Your task to perform on an android device: remove spam from my inbox in the gmail app Image 0: 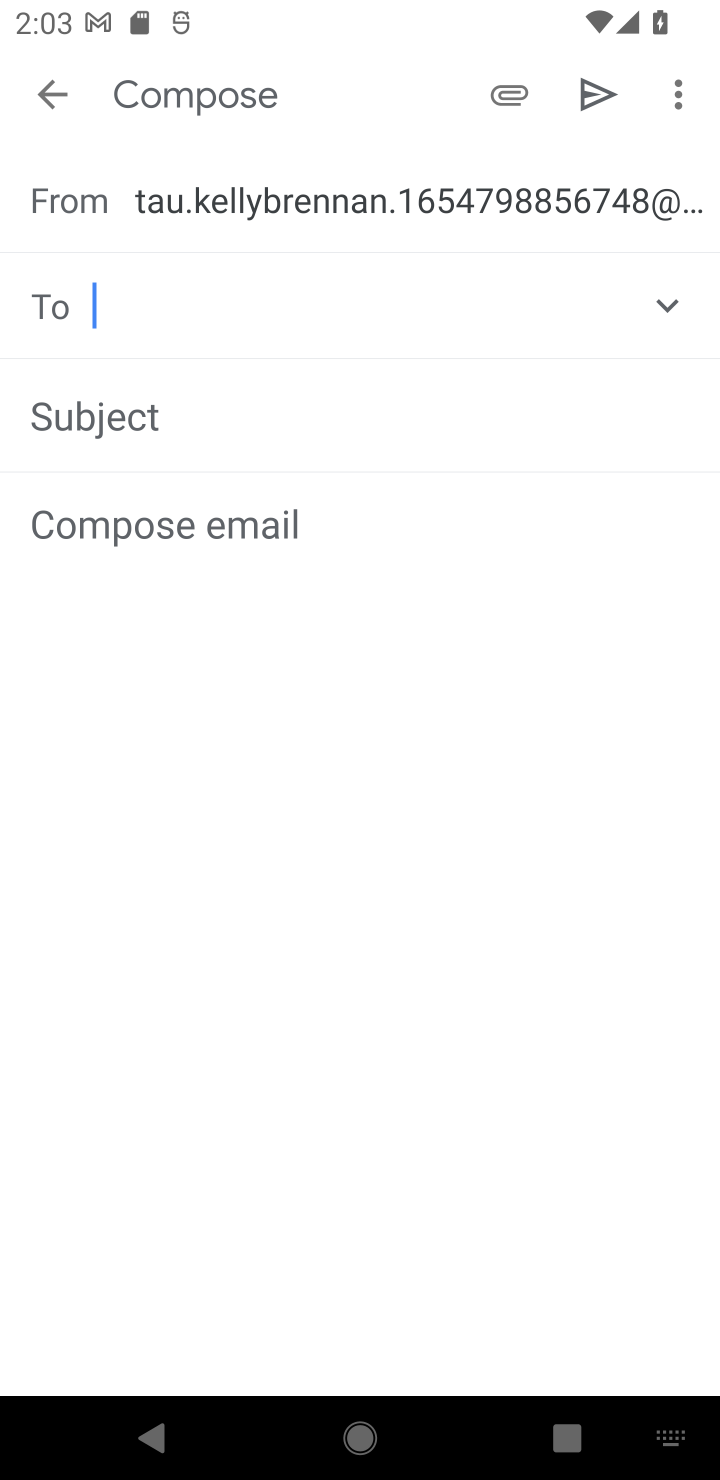
Step 0: press home button
Your task to perform on an android device: remove spam from my inbox in the gmail app Image 1: 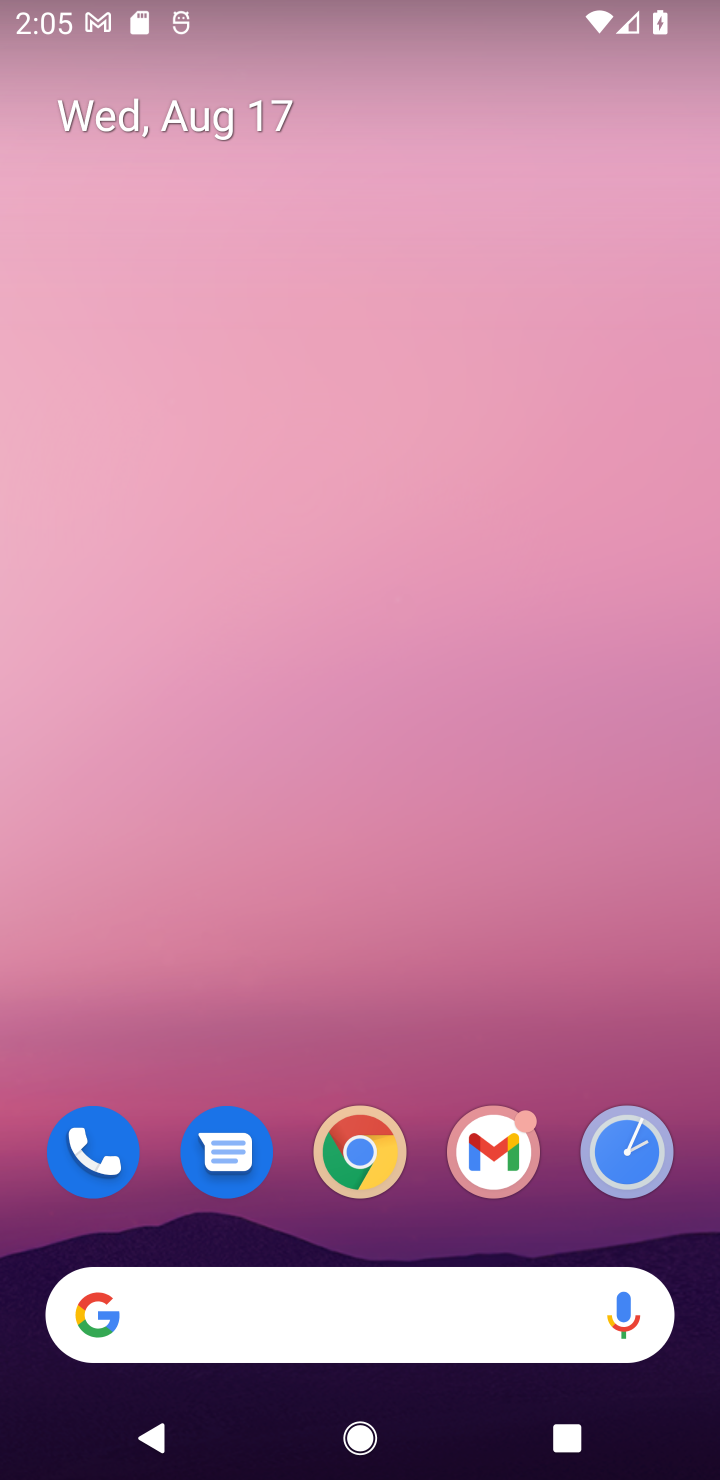
Step 1: drag from (569, 960) to (388, 19)
Your task to perform on an android device: remove spam from my inbox in the gmail app Image 2: 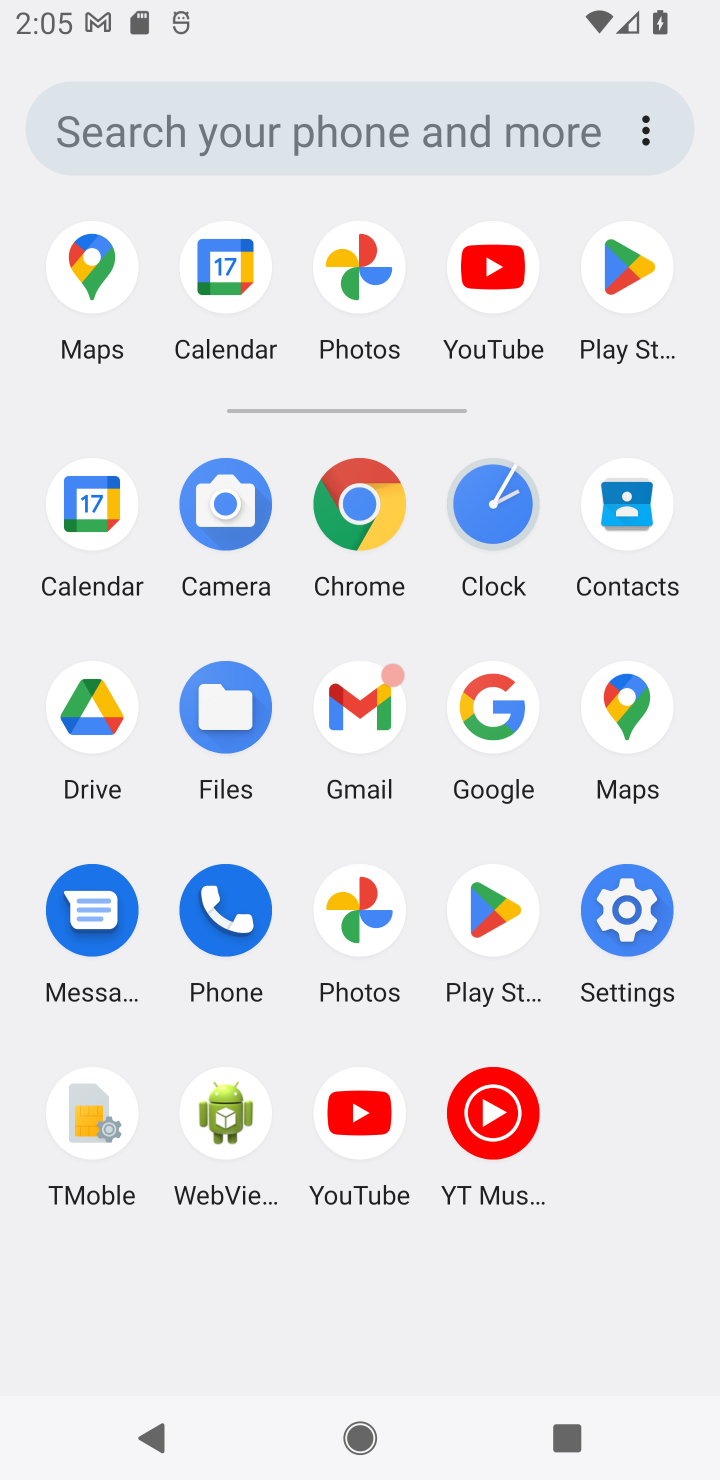
Step 2: click (353, 731)
Your task to perform on an android device: remove spam from my inbox in the gmail app Image 3: 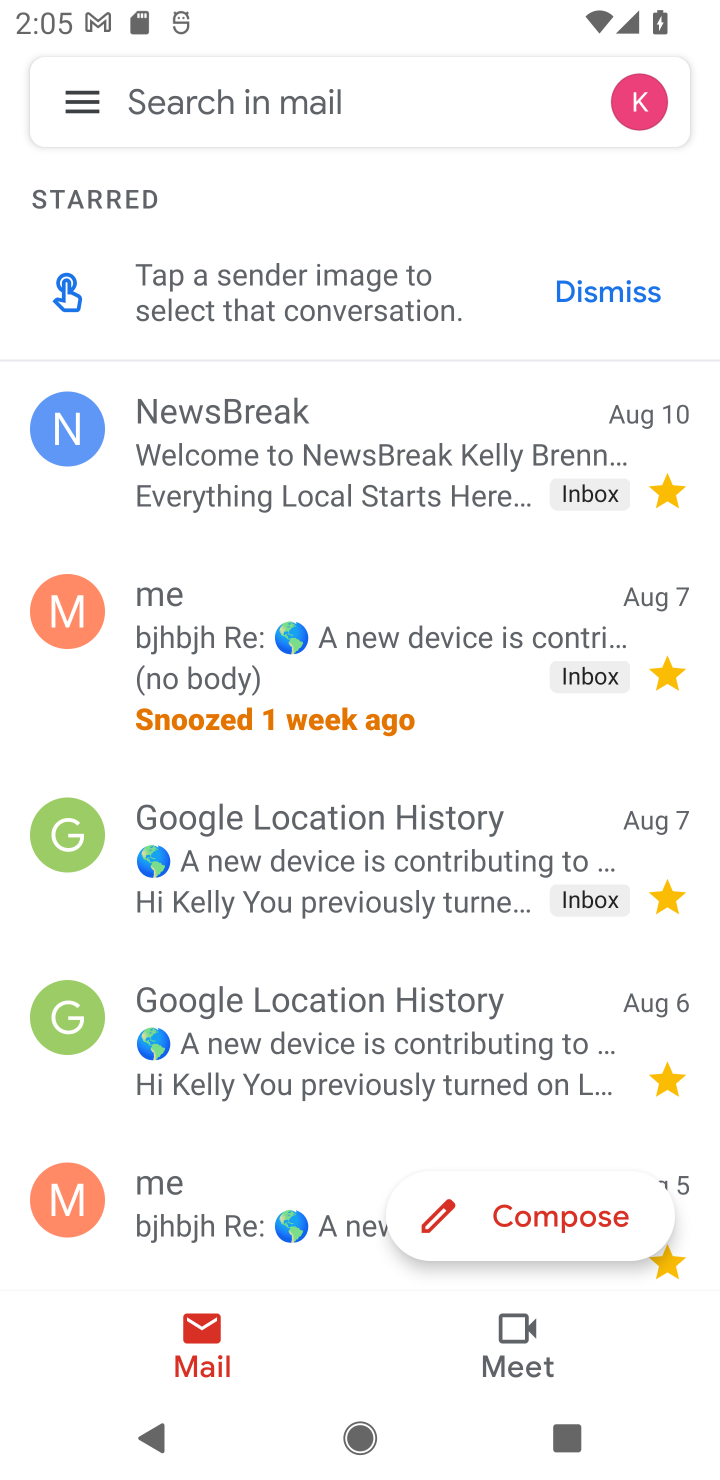
Step 3: task complete